Your task to perform on an android device: see sites visited before in the chrome app Image 0: 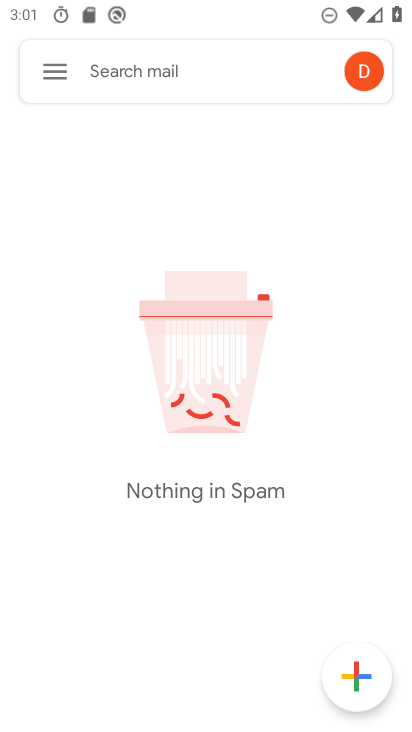
Step 0: press home button
Your task to perform on an android device: see sites visited before in the chrome app Image 1: 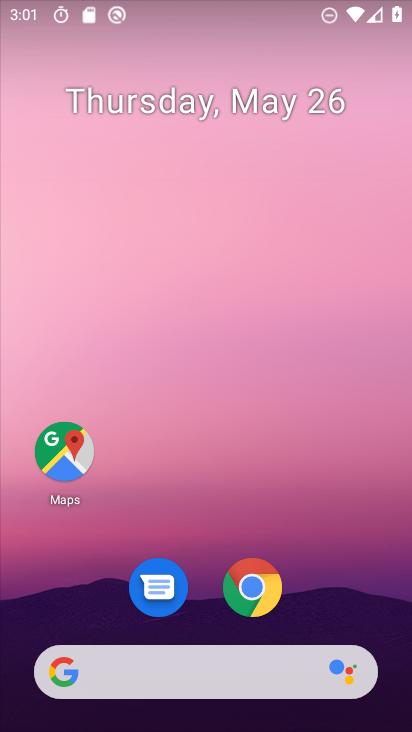
Step 1: drag from (317, 564) to (295, 89)
Your task to perform on an android device: see sites visited before in the chrome app Image 2: 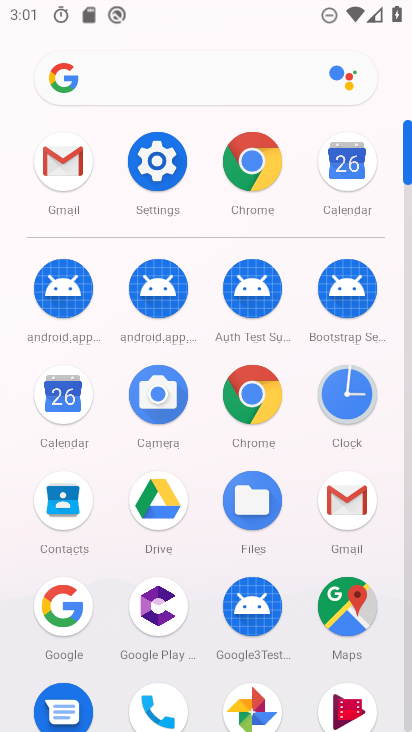
Step 2: click (245, 384)
Your task to perform on an android device: see sites visited before in the chrome app Image 3: 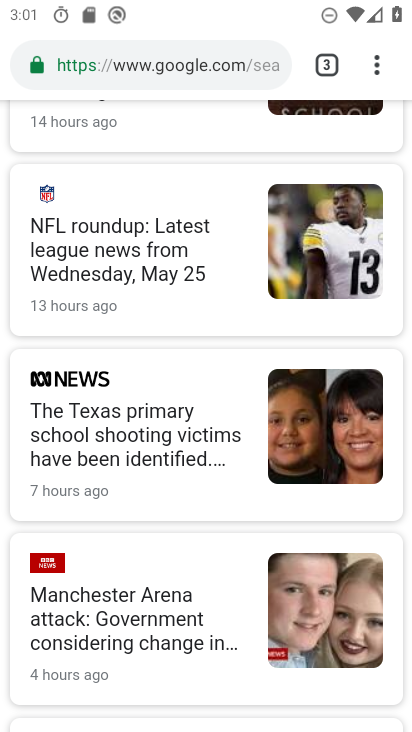
Step 3: task complete